Your task to perform on an android device: What's on my calendar today? Image 0: 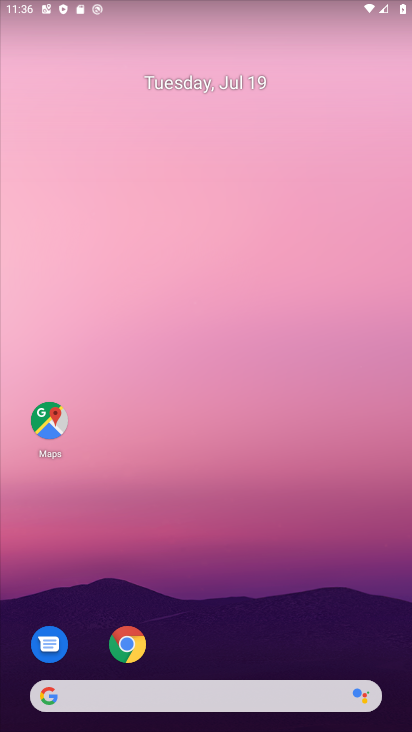
Step 0: drag from (92, 452) to (103, 288)
Your task to perform on an android device: What's on my calendar today? Image 1: 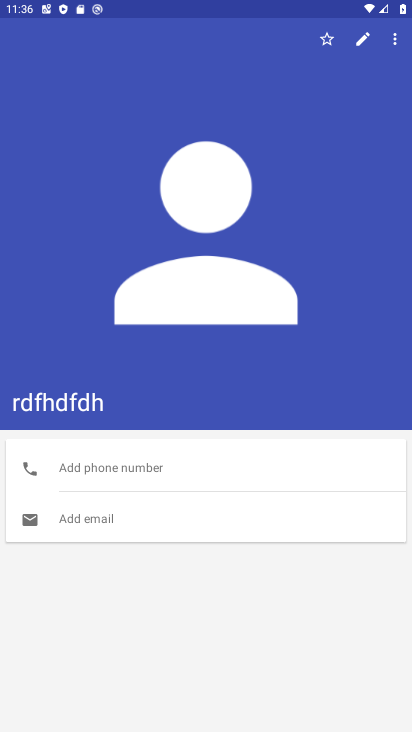
Step 1: press home button
Your task to perform on an android device: What's on my calendar today? Image 2: 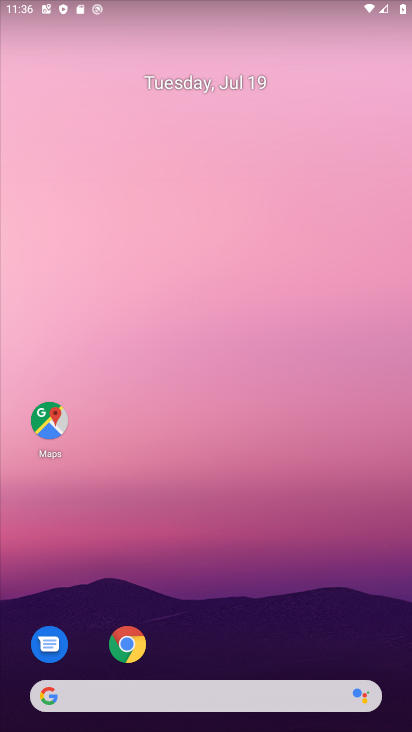
Step 2: drag from (31, 706) to (141, 19)
Your task to perform on an android device: What's on my calendar today? Image 3: 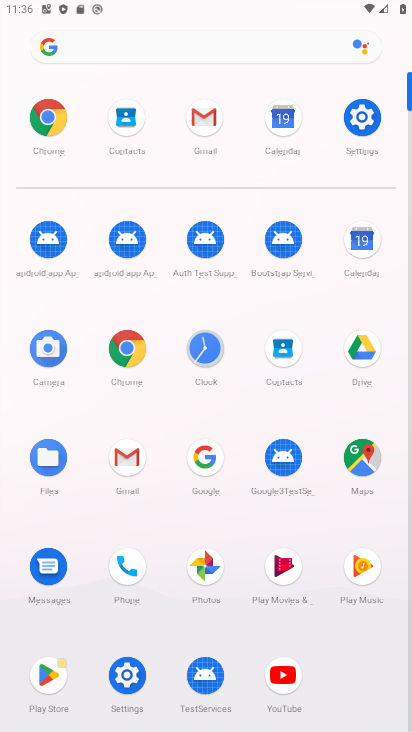
Step 3: click (370, 238)
Your task to perform on an android device: What's on my calendar today? Image 4: 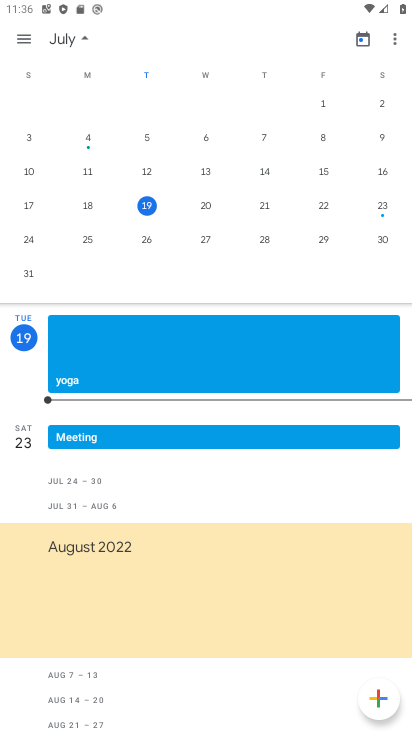
Step 4: task complete